Your task to perform on an android device: Open display settings Image 0: 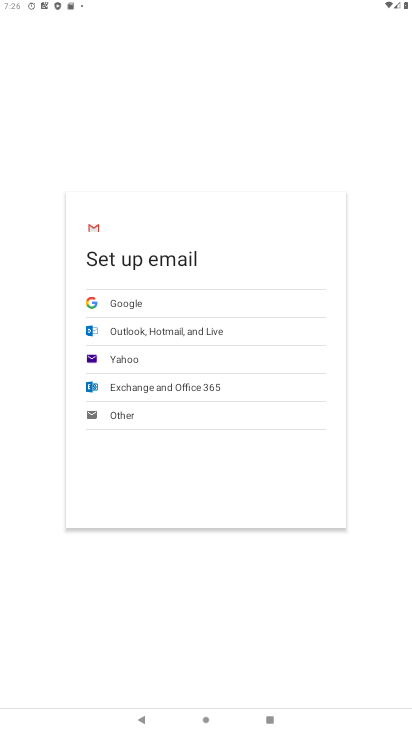
Step 0: press home button
Your task to perform on an android device: Open display settings Image 1: 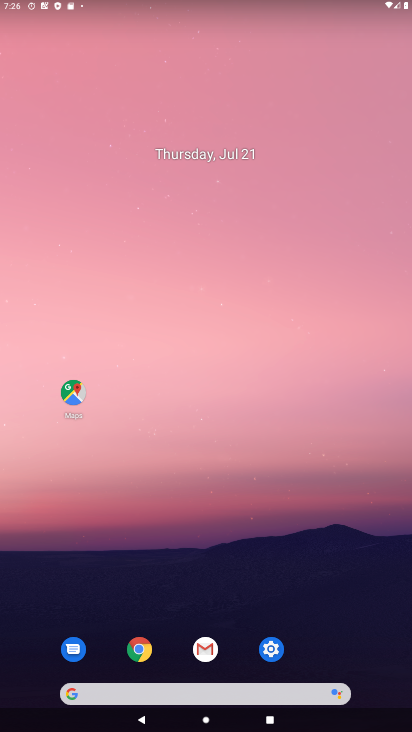
Step 1: click (278, 646)
Your task to perform on an android device: Open display settings Image 2: 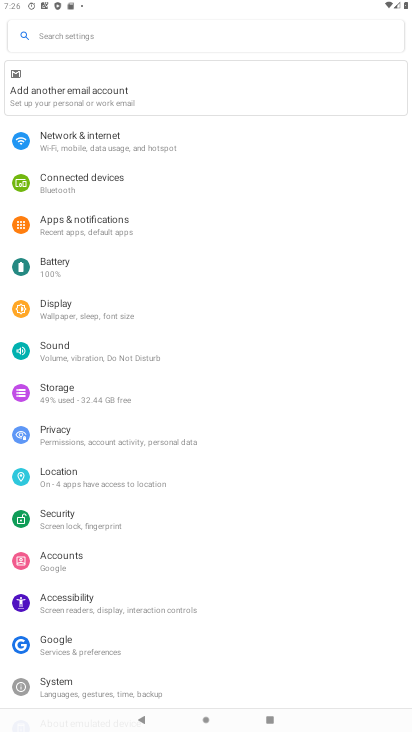
Step 2: click (71, 310)
Your task to perform on an android device: Open display settings Image 3: 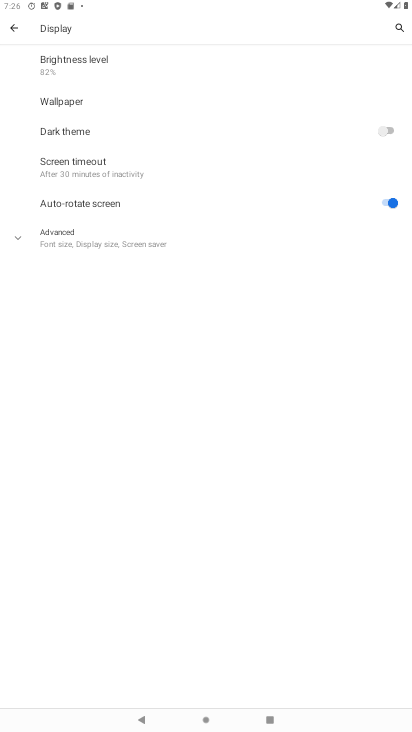
Step 3: task complete